Your task to perform on an android device: Open Chrome and go to the settings page Image 0: 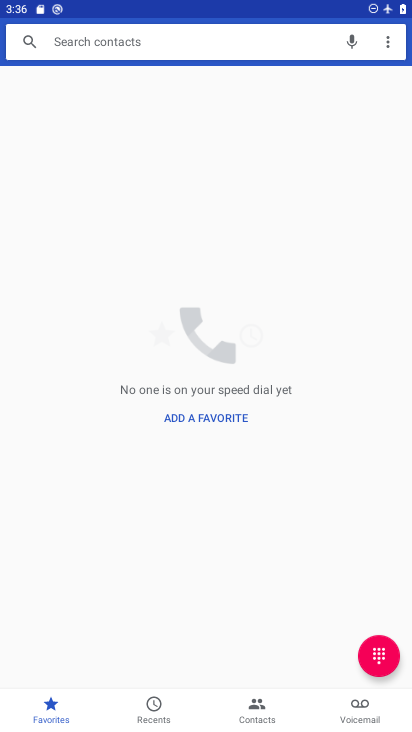
Step 0: press home button
Your task to perform on an android device: Open Chrome and go to the settings page Image 1: 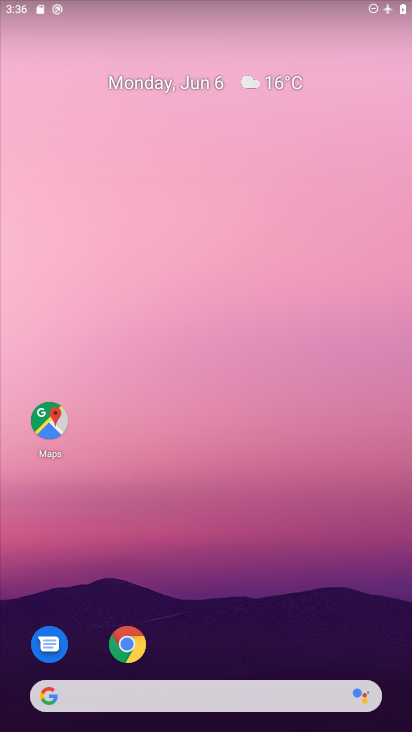
Step 1: click (128, 644)
Your task to perform on an android device: Open Chrome and go to the settings page Image 2: 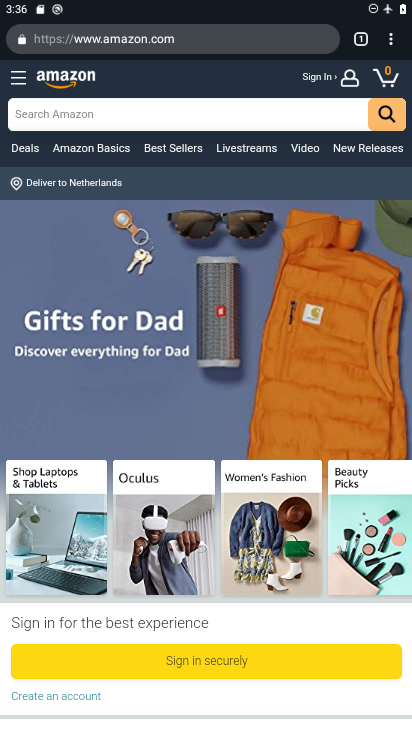
Step 2: click (391, 43)
Your task to perform on an android device: Open Chrome and go to the settings page Image 3: 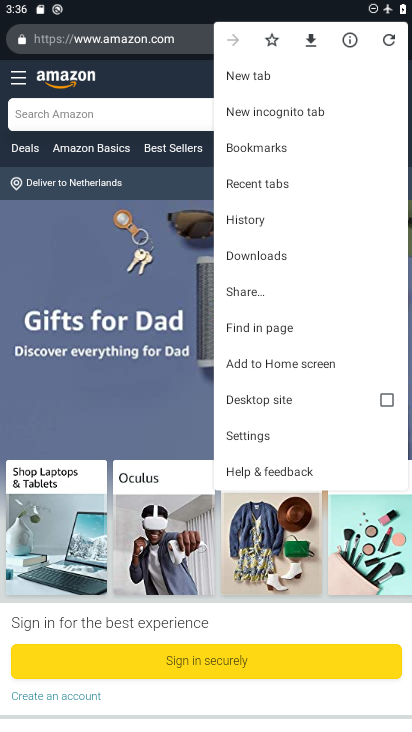
Step 3: click (243, 436)
Your task to perform on an android device: Open Chrome and go to the settings page Image 4: 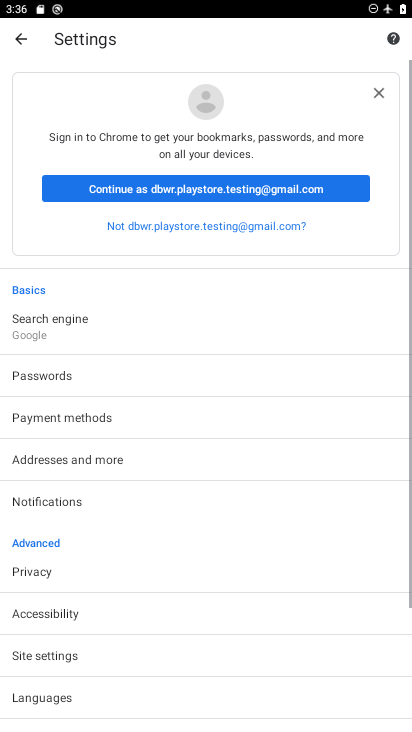
Step 4: task complete